Your task to perform on an android device: snooze an email in the gmail app Image 0: 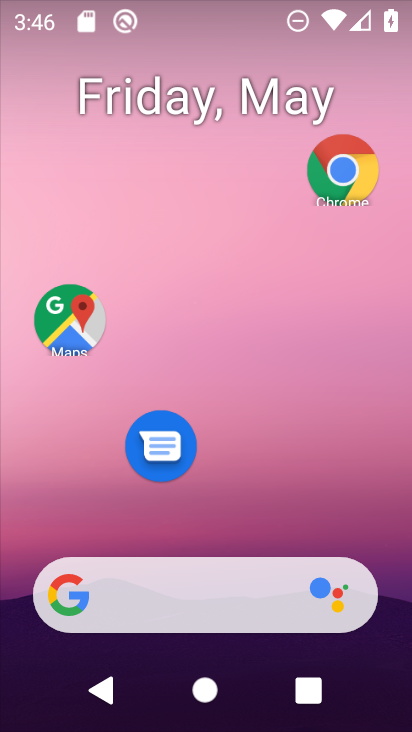
Step 0: drag from (254, 530) to (260, 87)
Your task to perform on an android device: snooze an email in the gmail app Image 1: 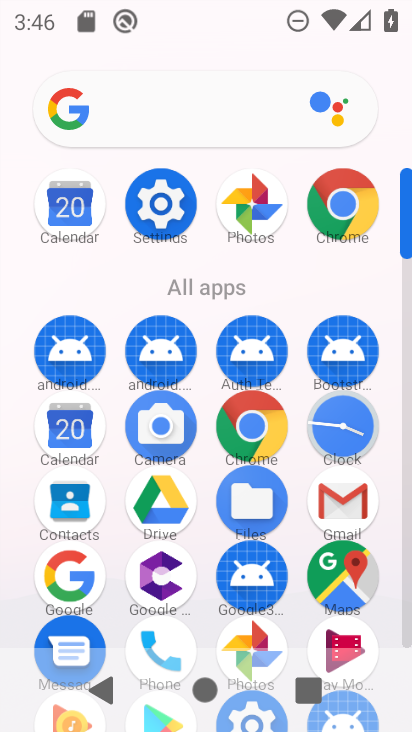
Step 1: drag from (282, 289) to (288, 81)
Your task to perform on an android device: snooze an email in the gmail app Image 2: 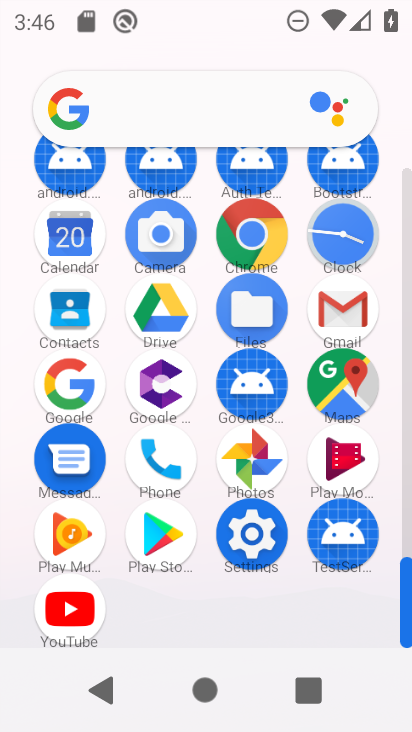
Step 2: click (335, 327)
Your task to perform on an android device: snooze an email in the gmail app Image 3: 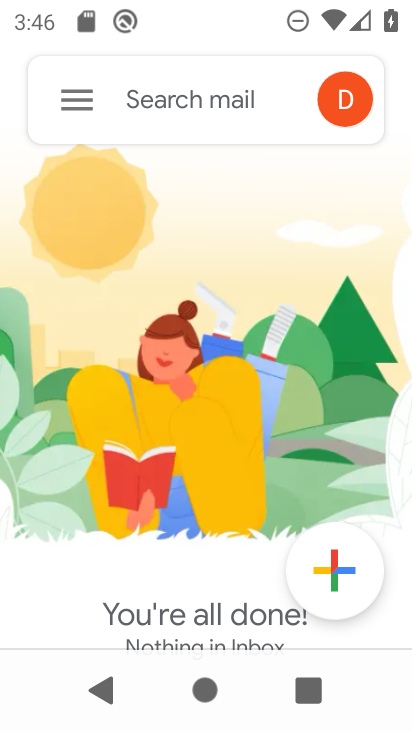
Step 3: task complete